Your task to perform on an android device: stop showing notifications on the lock screen Image 0: 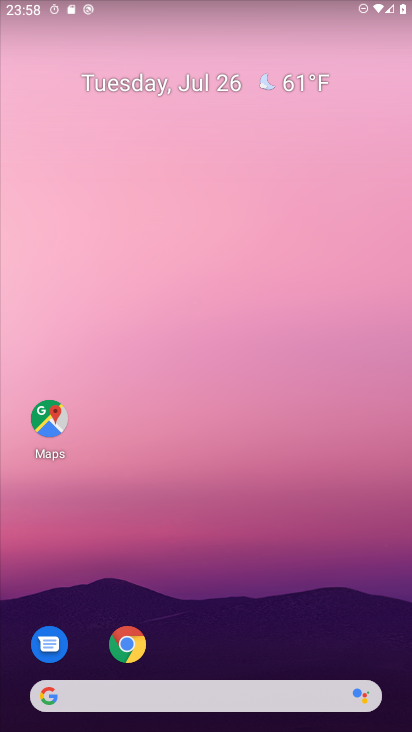
Step 0: drag from (283, 638) to (237, 98)
Your task to perform on an android device: stop showing notifications on the lock screen Image 1: 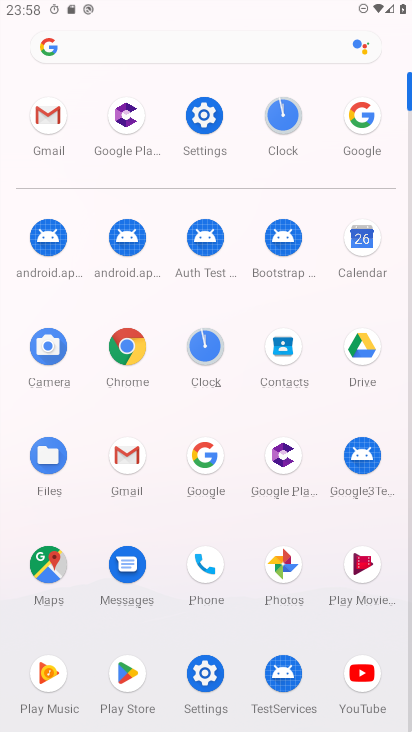
Step 1: click (208, 115)
Your task to perform on an android device: stop showing notifications on the lock screen Image 2: 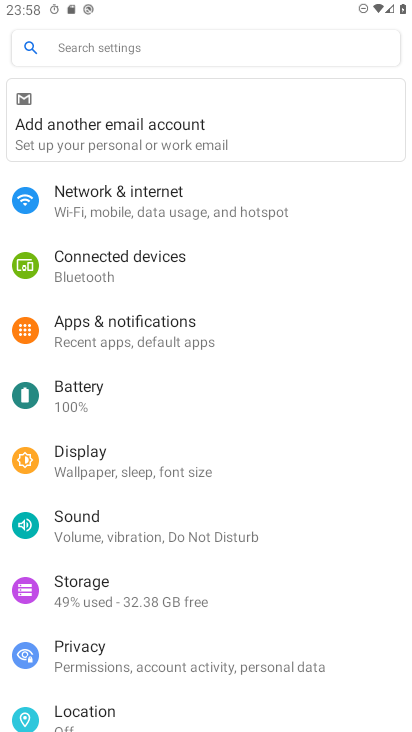
Step 2: click (107, 341)
Your task to perform on an android device: stop showing notifications on the lock screen Image 3: 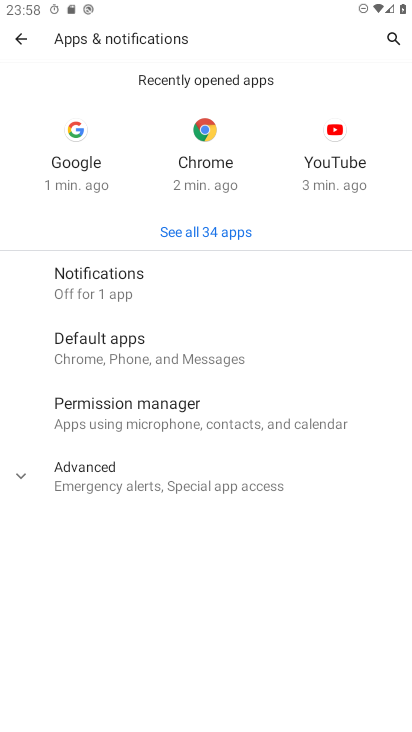
Step 3: click (73, 295)
Your task to perform on an android device: stop showing notifications on the lock screen Image 4: 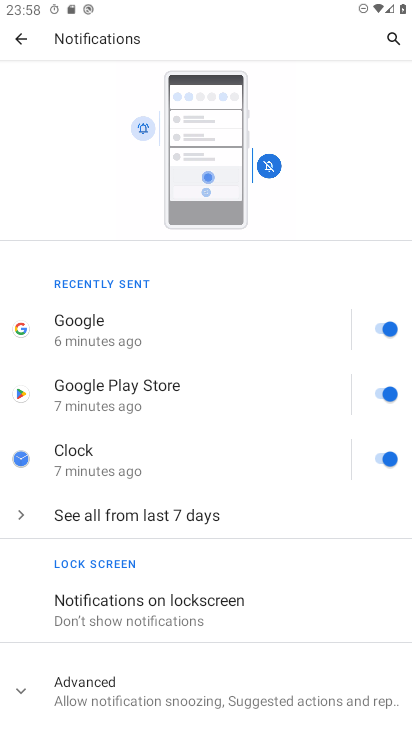
Step 4: click (110, 618)
Your task to perform on an android device: stop showing notifications on the lock screen Image 5: 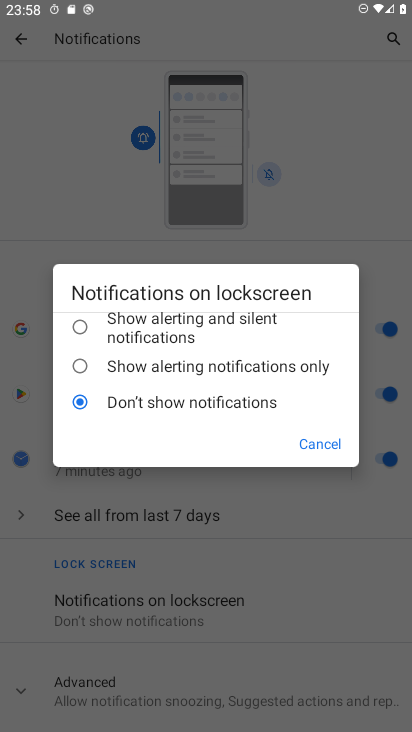
Step 5: task complete